Your task to perform on an android device: visit the assistant section in the google photos Image 0: 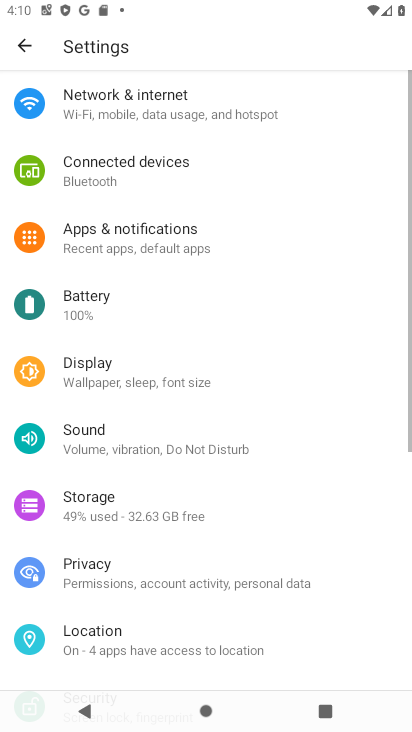
Step 0: press home button
Your task to perform on an android device: visit the assistant section in the google photos Image 1: 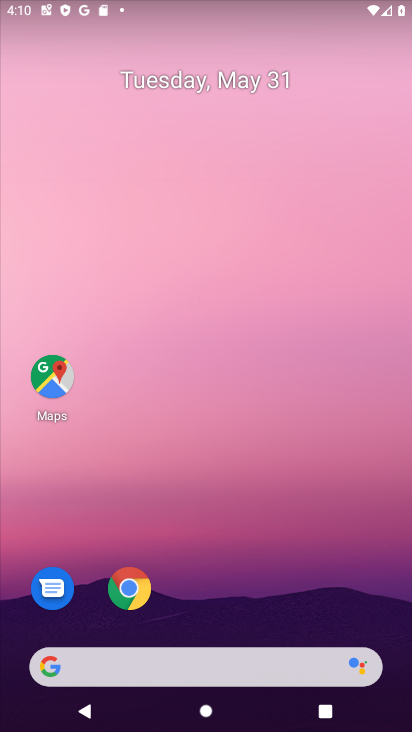
Step 1: drag from (188, 632) to (262, 125)
Your task to perform on an android device: visit the assistant section in the google photos Image 2: 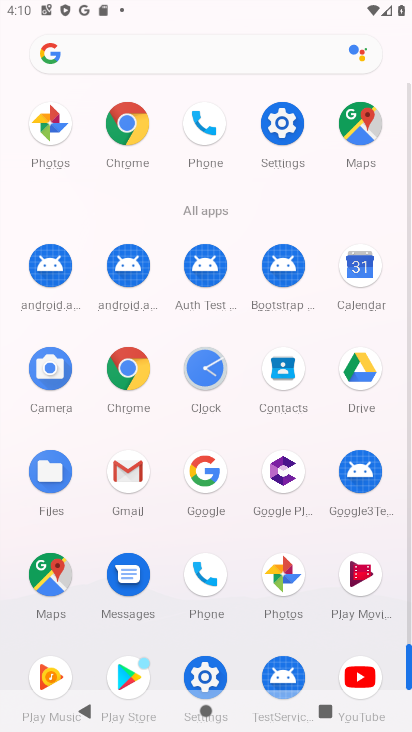
Step 2: click (55, 119)
Your task to perform on an android device: visit the assistant section in the google photos Image 3: 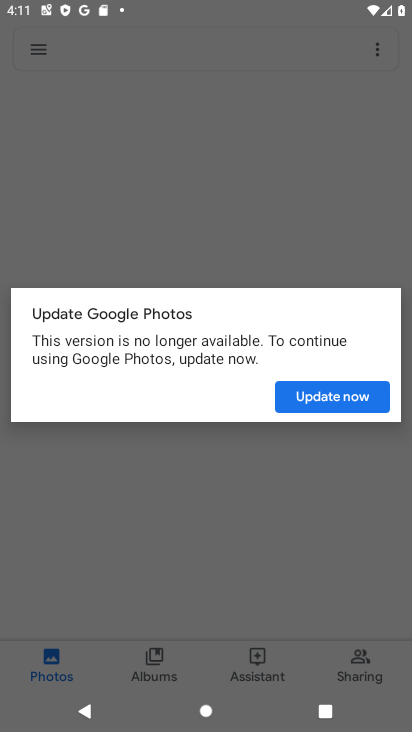
Step 3: click (259, 651)
Your task to perform on an android device: visit the assistant section in the google photos Image 4: 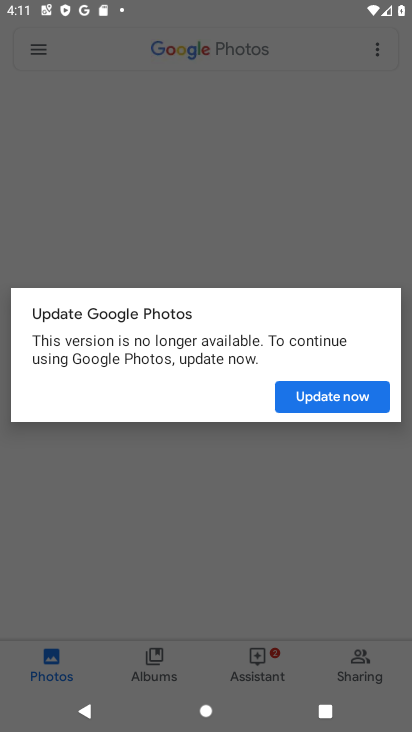
Step 4: click (326, 384)
Your task to perform on an android device: visit the assistant section in the google photos Image 5: 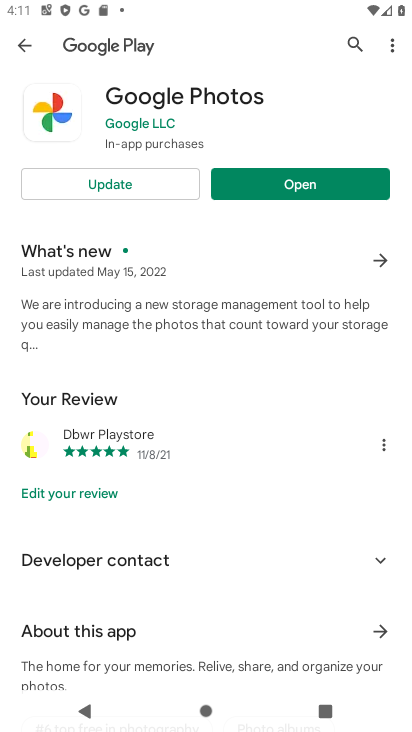
Step 5: click (278, 183)
Your task to perform on an android device: visit the assistant section in the google photos Image 6: 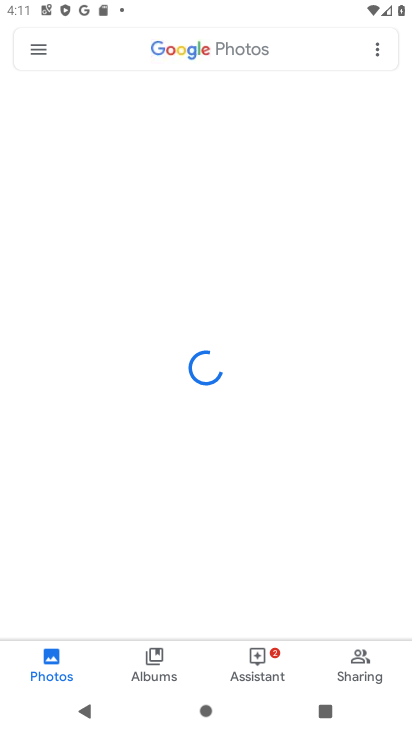
Step 6: click (275, 680)
Your task to perform on an android device: visit the assistant section in the google photos Image 7: 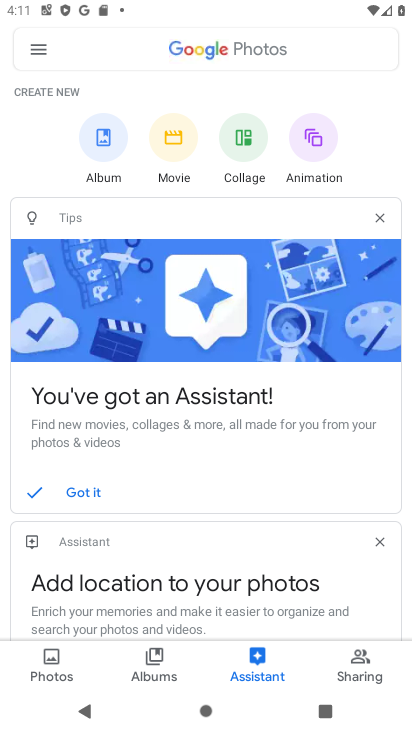
Step 7: task complete